Your task to perform on an android device: open wifi settings Image 0: 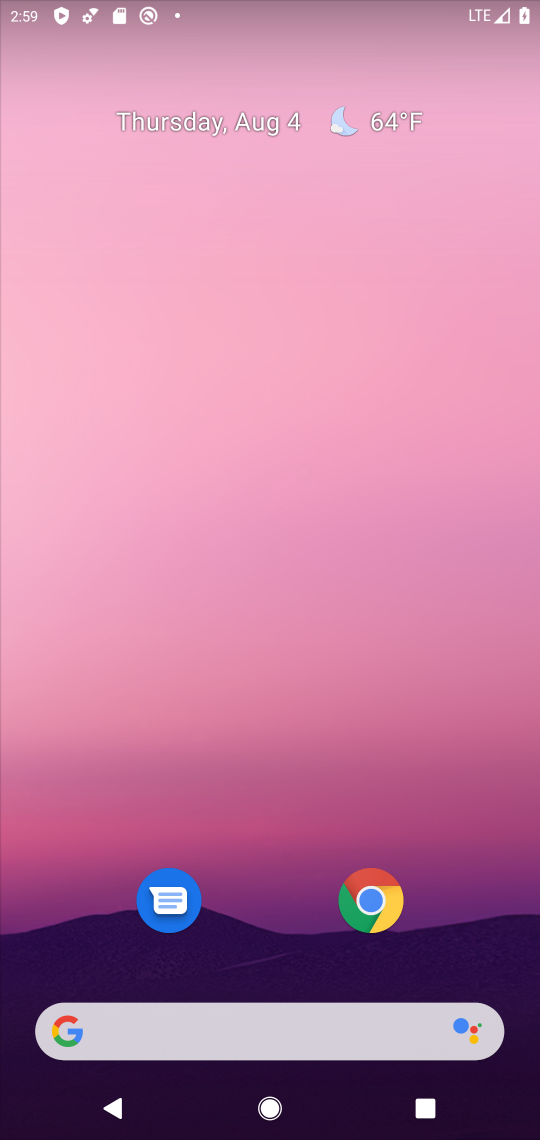
Step 0: drag from (499, 946) to (404, 289)
Your task to perform on an android device: open wifi settings Image 1: 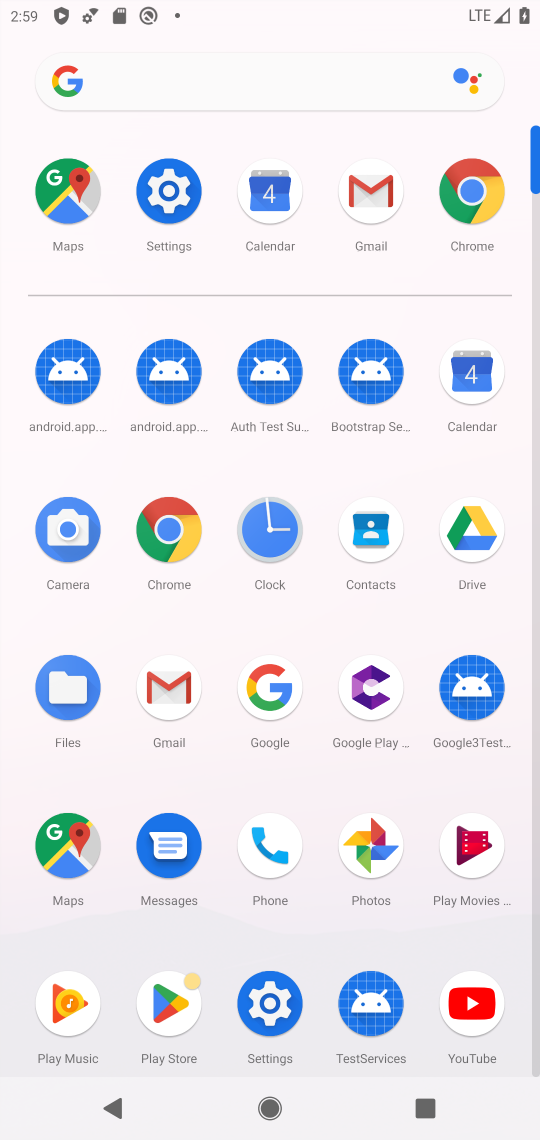
Step 1: click (153, 194)
Your task to perform on an android device: open wifi settings Image 2: 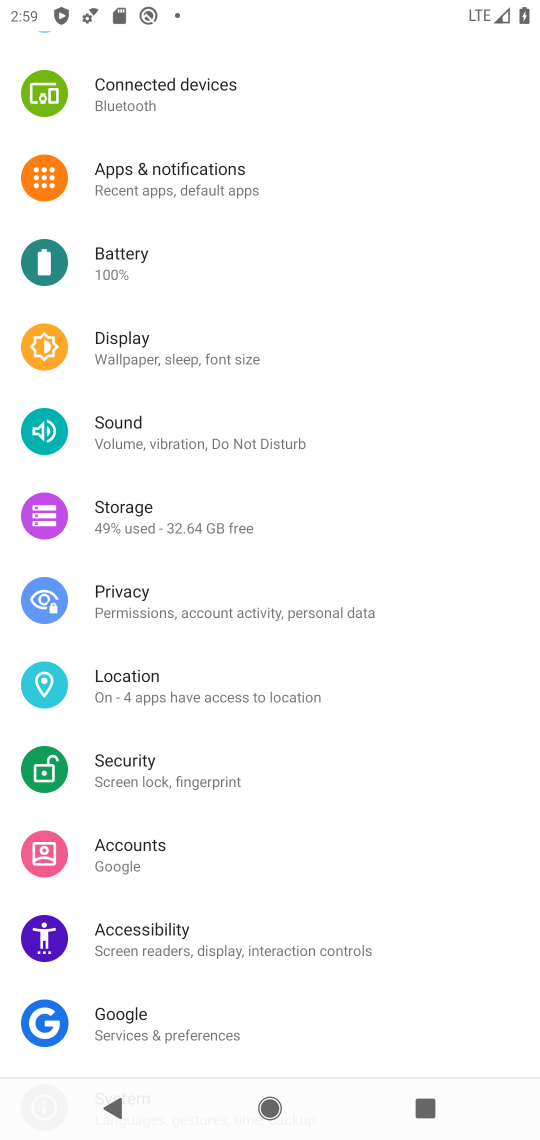
Step 2: drag from (240, 97) to (318, 762)
Your task to perform on an android device: open wifi settings Image 3: 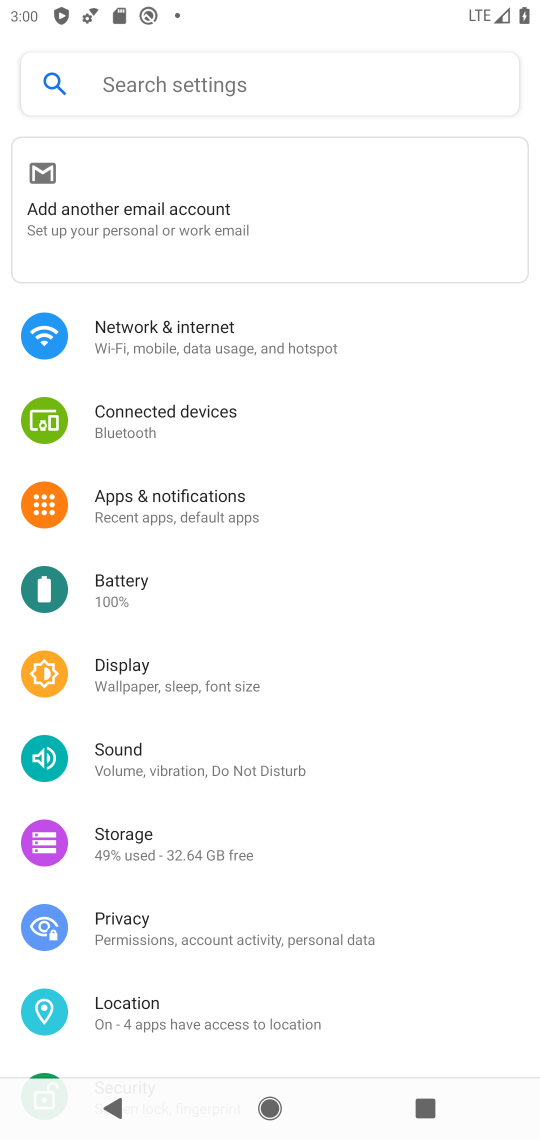
Step 3: click (256, 325)
Your task to perform on an android device: open wifi settings Image 4: 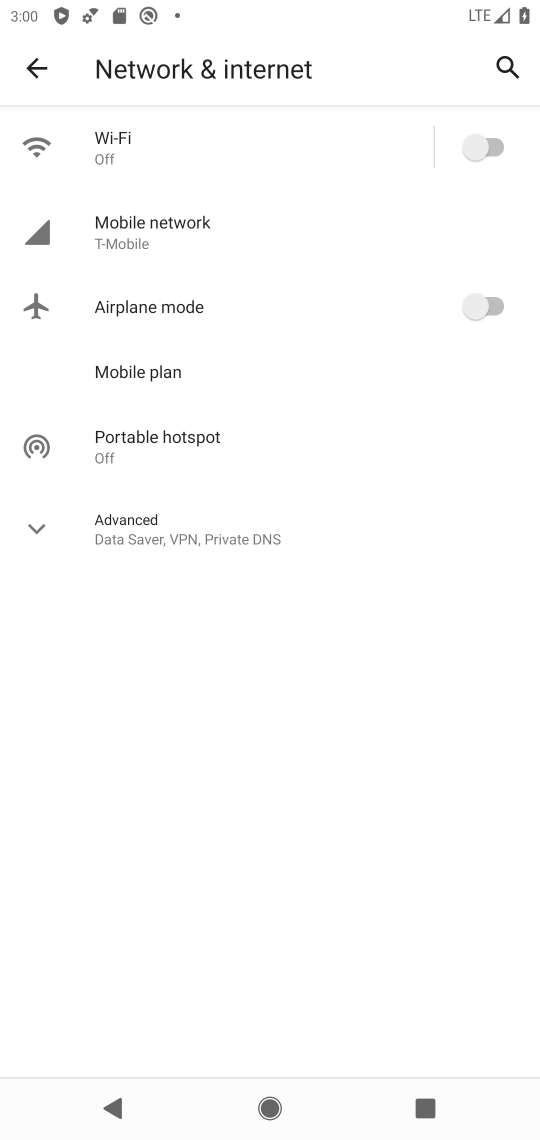
Step 4: click (313, 162)
Your task to perform on an android device: open wifi settings Image 5: 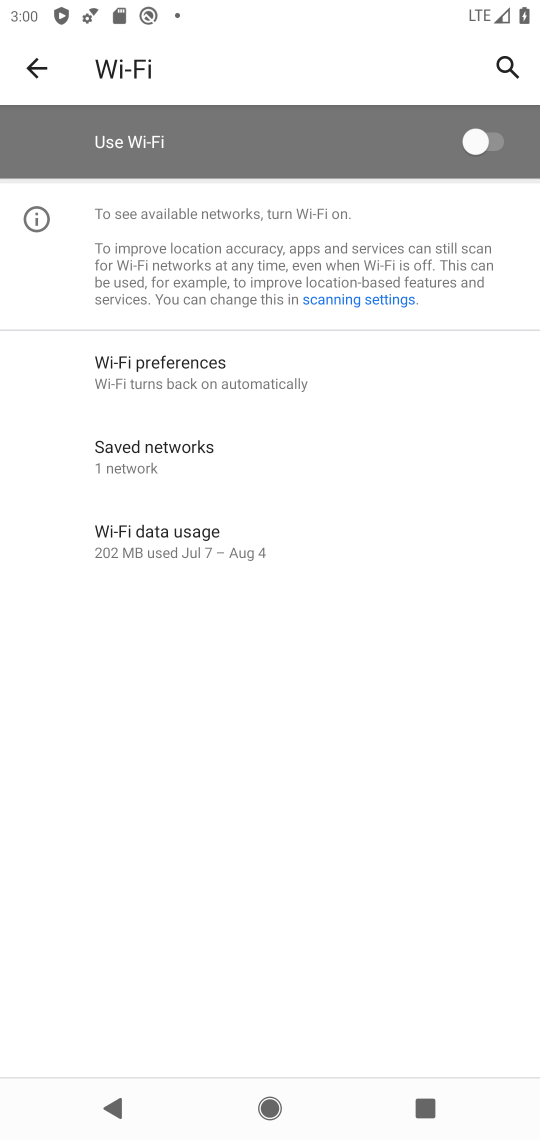
Step 5: task complete